Your task to perform on an android device: open wifi settings Image 0: 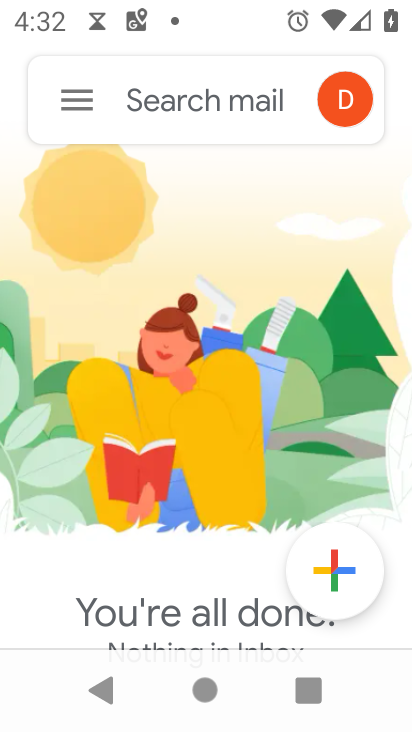
Step 0: press home button
Your task to perform on an android device: open wifi settings Image 1: 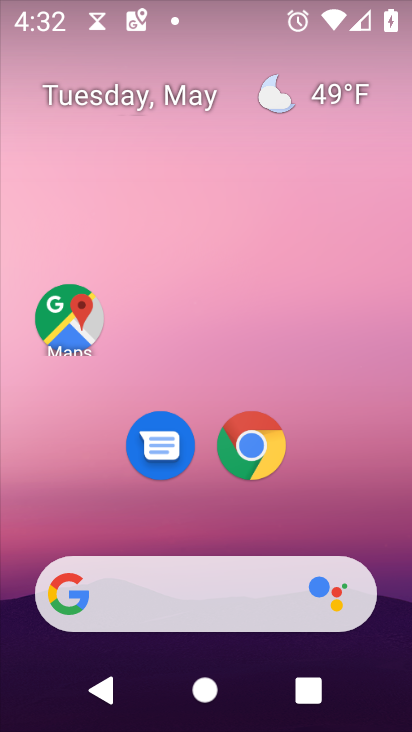
Step 1: drag from (362, 584) to (376, 3)
Your task to perform on an android device: open wifi settings Image 2: 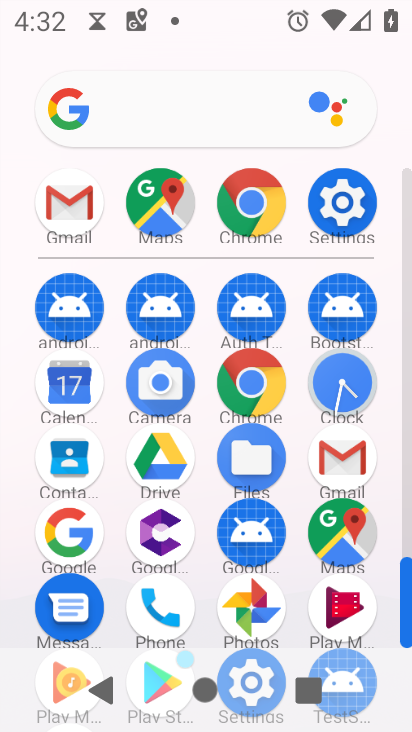
Step 2: click (335, 220)
Your task to perform on an android device: open wifi settings Image 3: 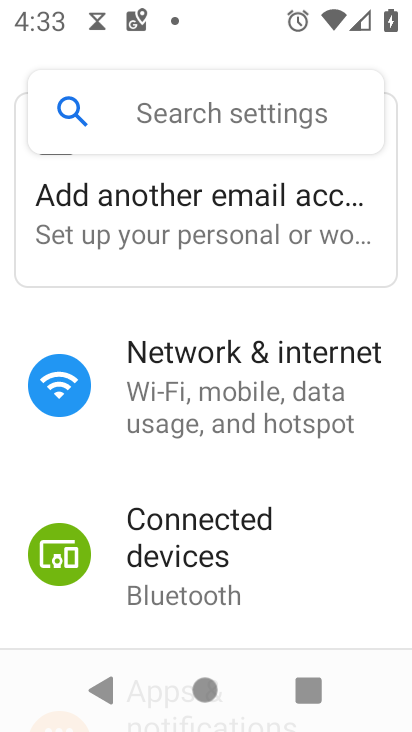
Step 3: click (300, 416)
Your task to perform on an android device: open wifi settings Image 4: 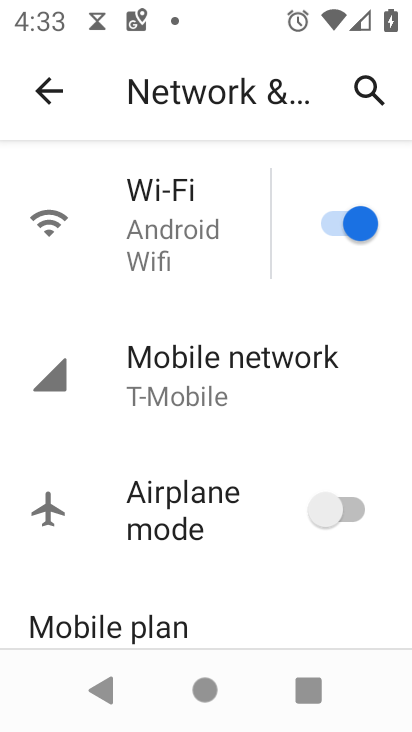
Step 4: click (212, 236)
Your task to perform on an android device: open wifi settings Image 5: 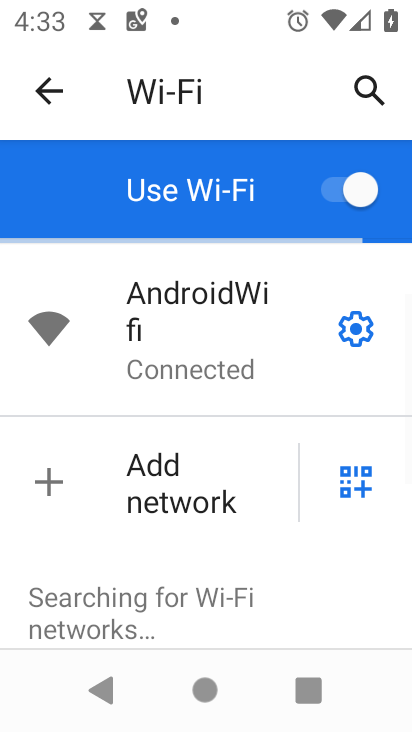
Step 5: task complete